Your task to perform on an android device: turn on wifi Image 0: 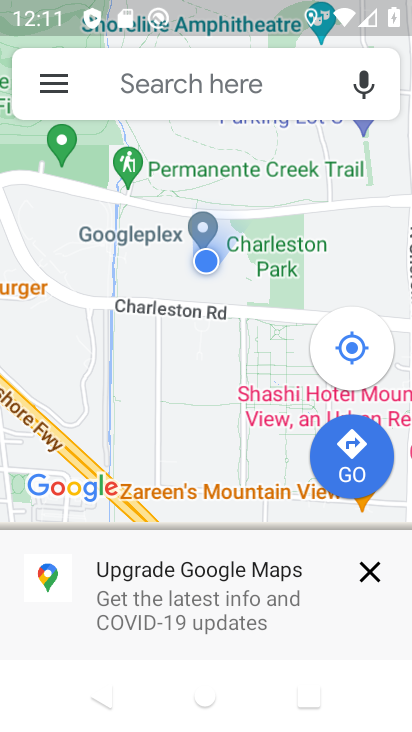
Step 0: press back button
Your task to perform on an android device: turn on wifi Image 1: 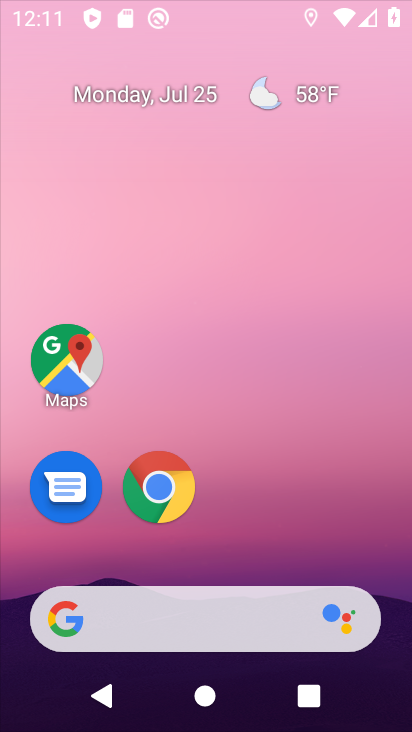
Step 1: task complete